Your task to perform on an android device: read, delete, or share a saved page in the chrome app Image 0: 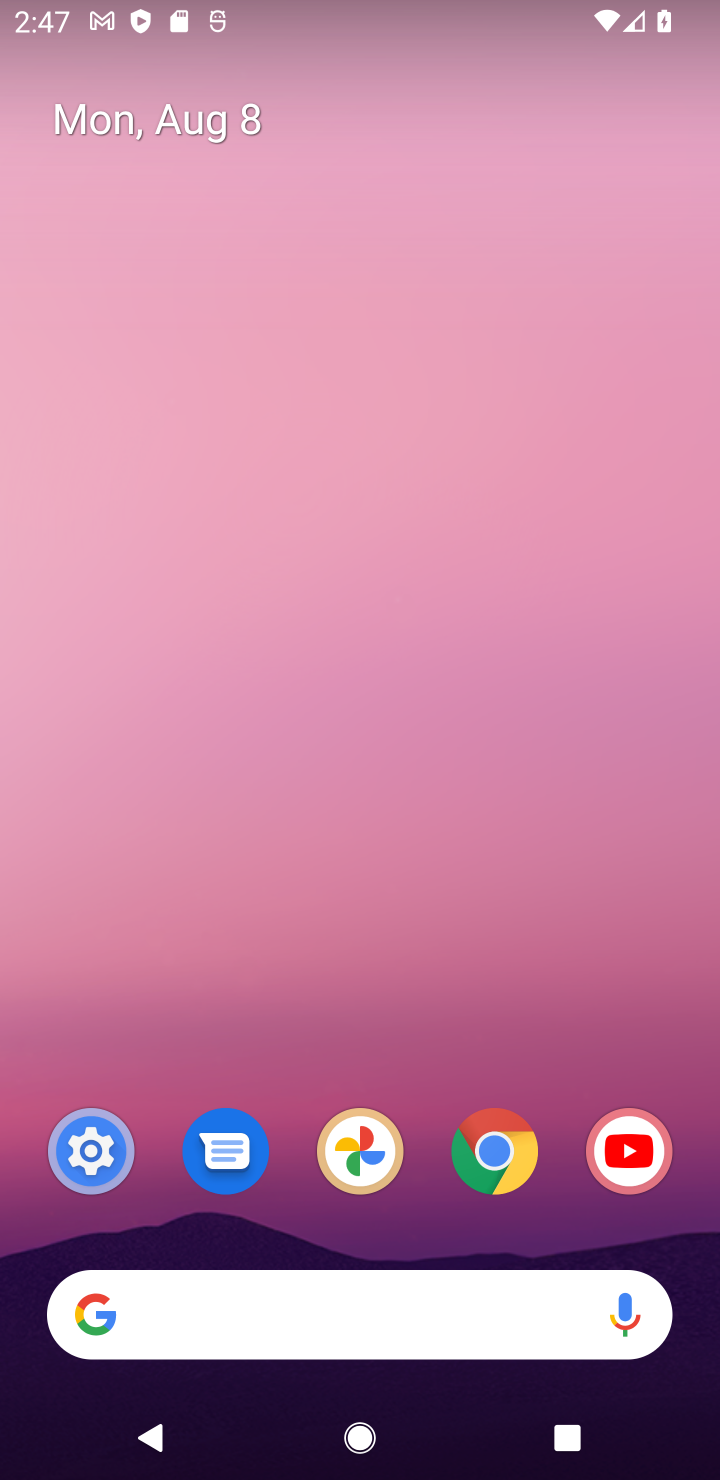
Step 0: click (508, 1142)
Your task to perform on an android device: read, delete, or share a saved page in the chrome app Image 1: 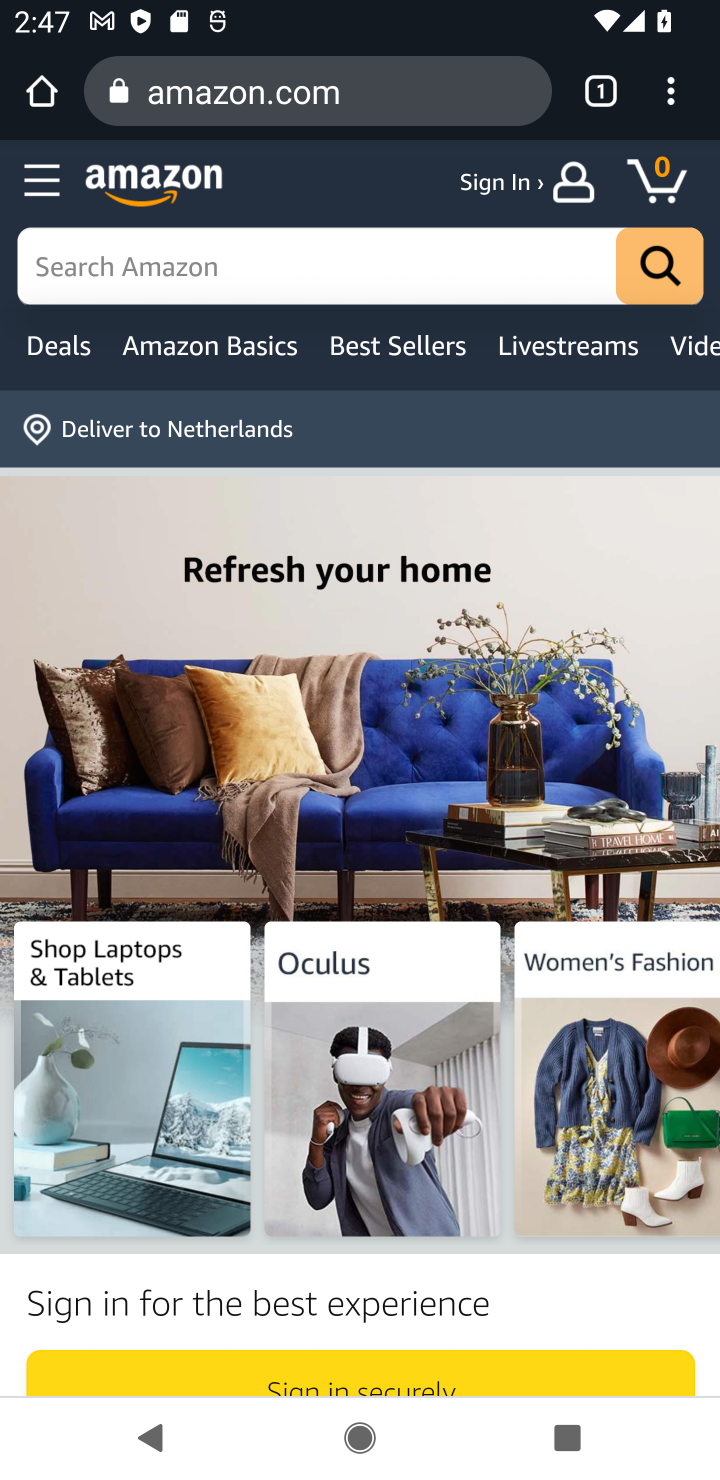
Step 1: click (681, 94)
Your task to perform on an android device: read, delete, or share a saved page in the chrome app Image 2: 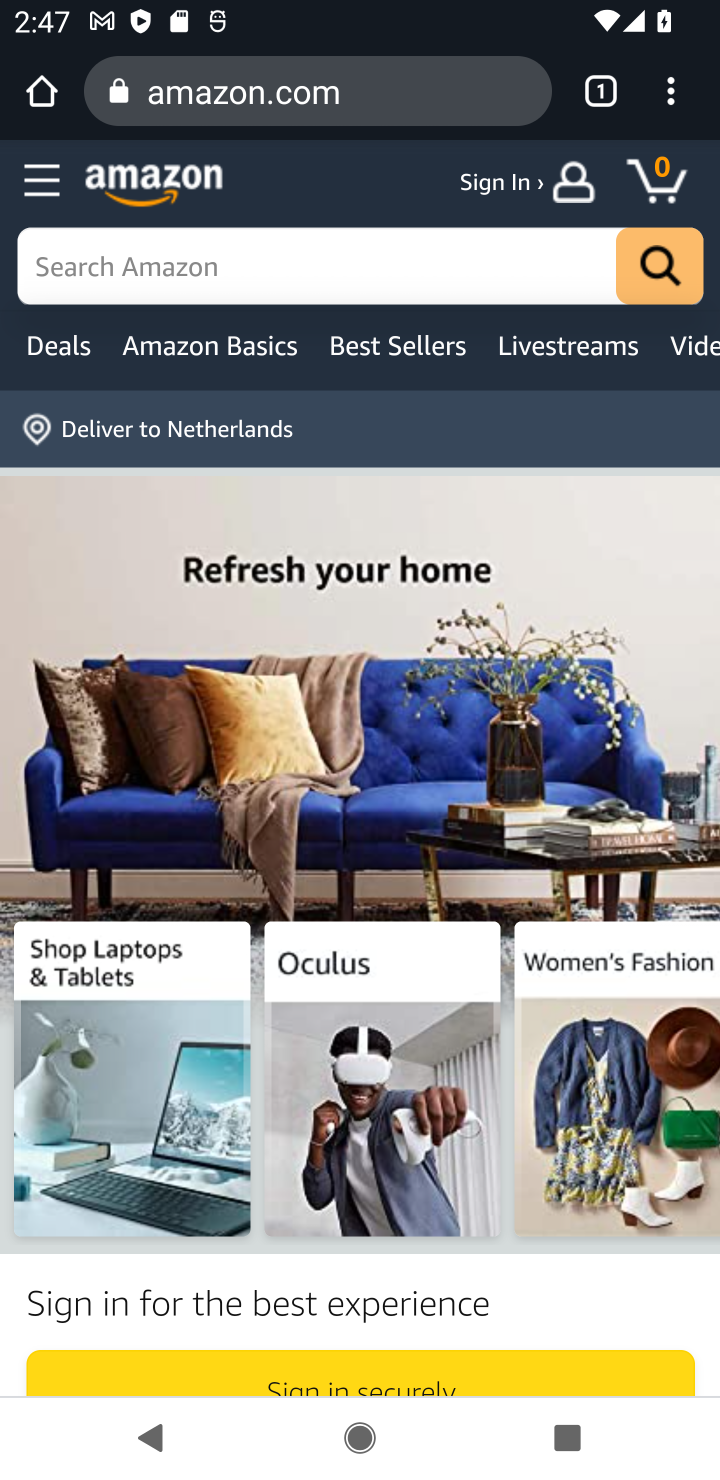
Step 2: drag from (664, 112) to (469, 463)
Your task to perform on an android device: read, delete, or share a saved page in the chrome app Image 3: 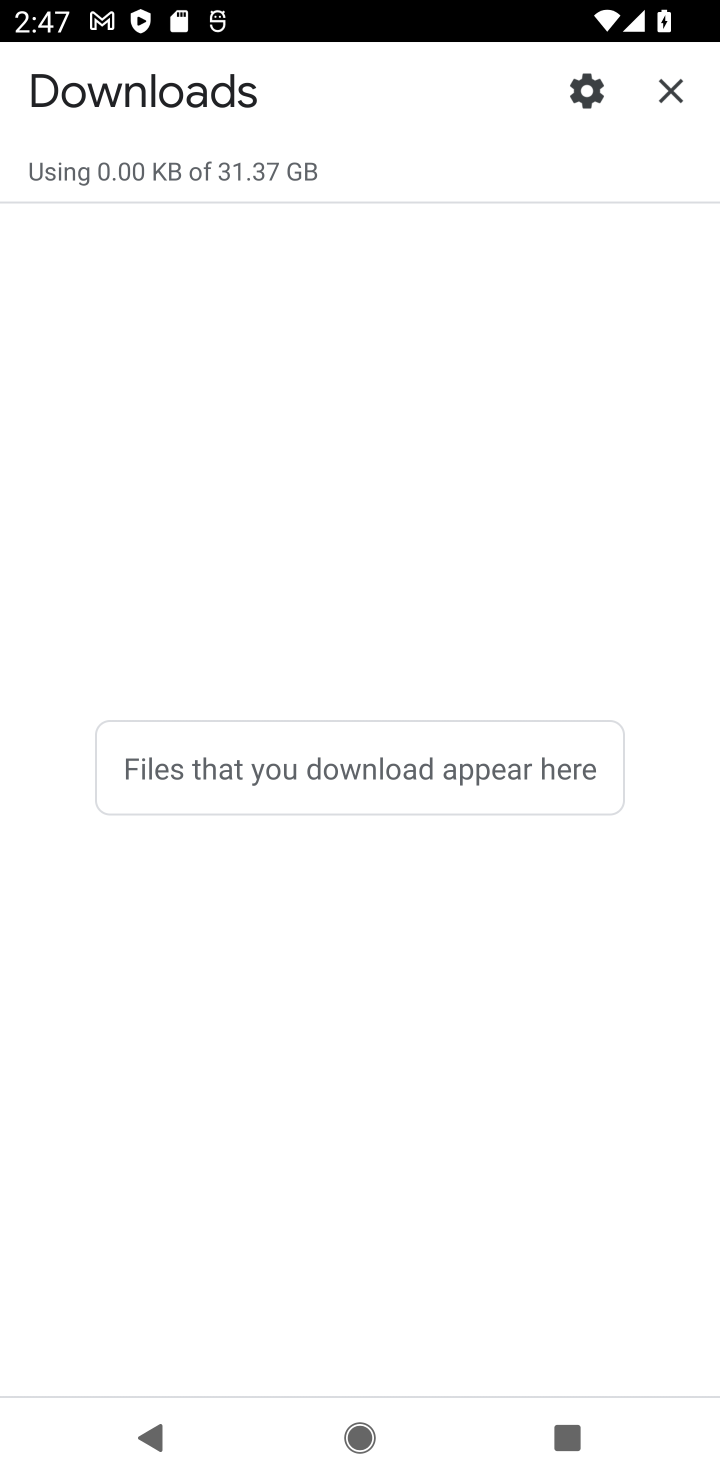
Step 3: click (259, 111)
Your task to perform on an android device: read, delete, or share a saved page in the chrome app Image 4: 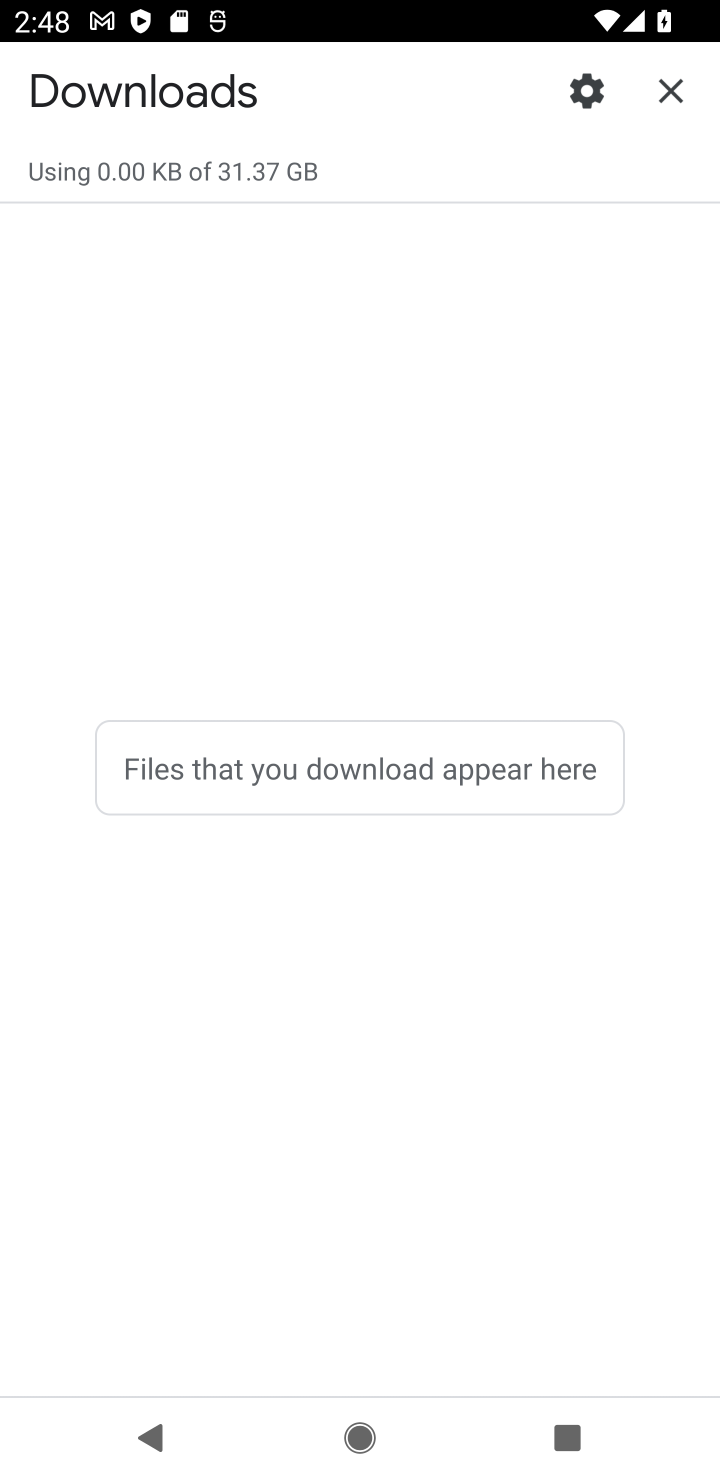
Step 4: task complete